Your task to perform on an android device: read, delete, or share a saved page in the chrome app Image 0: 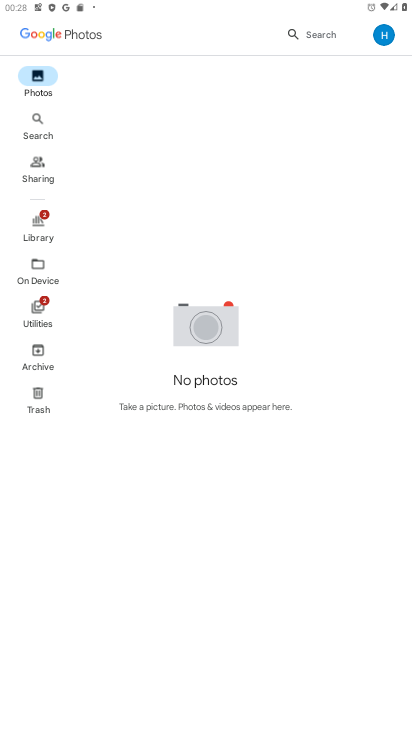
Step 0: press home button
Your task to perform on an android device: read, delete, or share a saved page in the chrome app Image 1: 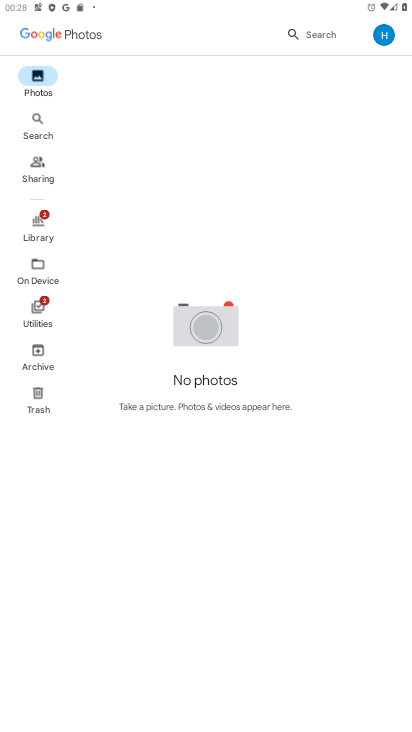
Step 1: drag from (205, 704) to (292, 160)
Your task to perform on an android device: read, delete, or share a saved page in the chrome app Image 2: 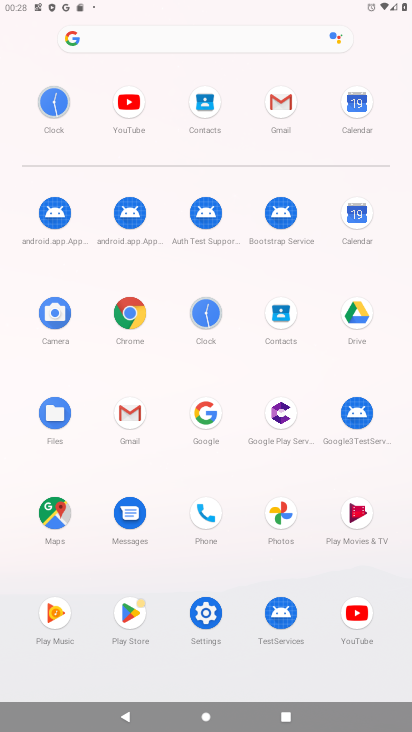
Step 2: click (120, 331)
Your task to perform on an android device: read, delete, or share a saved page in the chrome app Image 3: 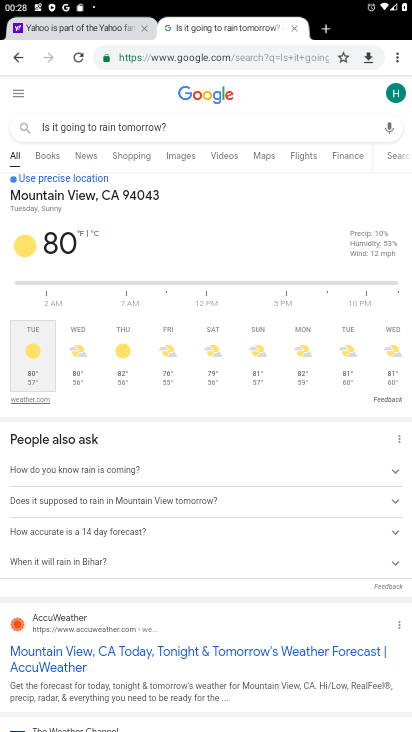
Step 3: drag from (407, 53) to (278, 253)
Your task to perform on an android device: read, delete, or share a saved page in the chrome app Image 4: 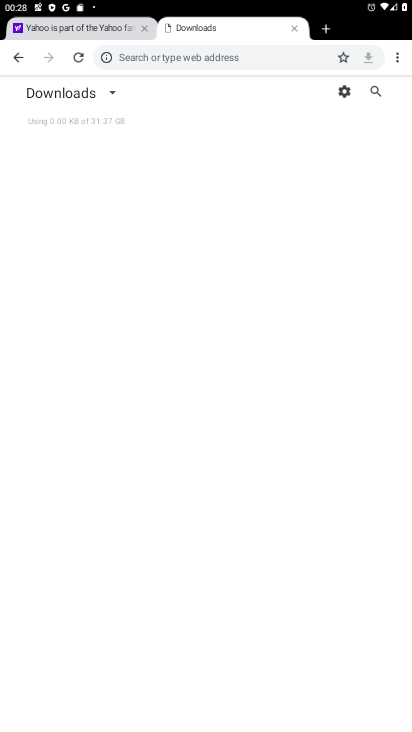
Step 4: click (114, 96)
Your task to perform on an android device: read, delete, or share a saved page in the chrome app Image 5: 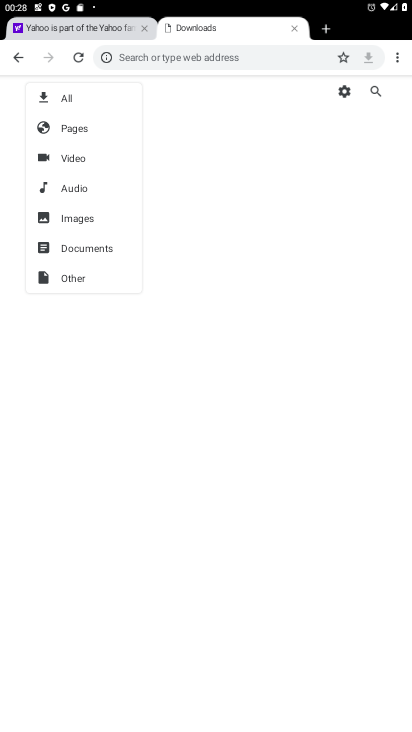
Step 5: click (72, 132)
Your task to perform on an android device: read, delete, or share a saved page in the chrome app Image 6: 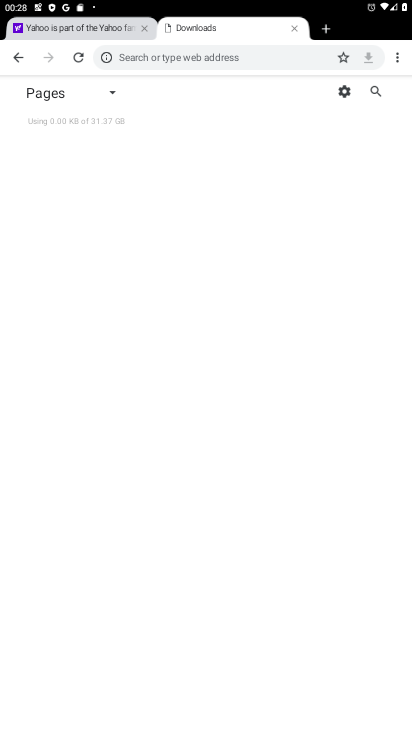
Step 6: task complete